Your task to perform on an android device: turn off translation in the chrome app Image 0: 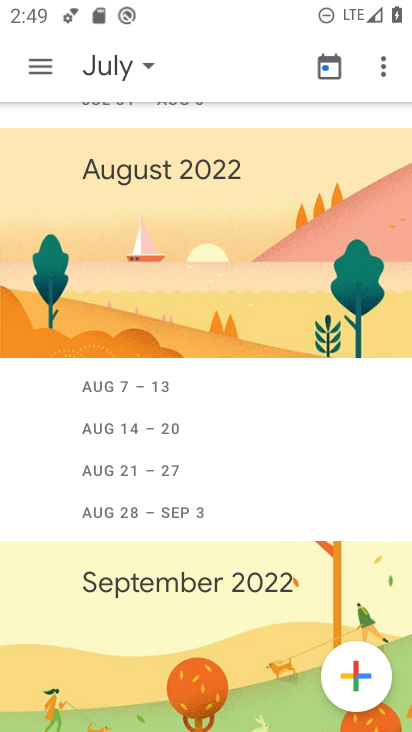
Step 0: press home button
Your task to perform on an android device: turn off translation in the chrome app Image 1: 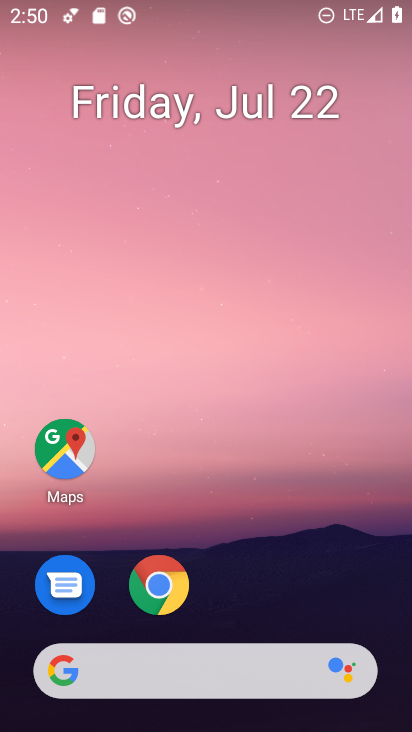
Step 1: click (173, 580)
Your task to perform on an android device: turn off translation in the chrome app Image 2: 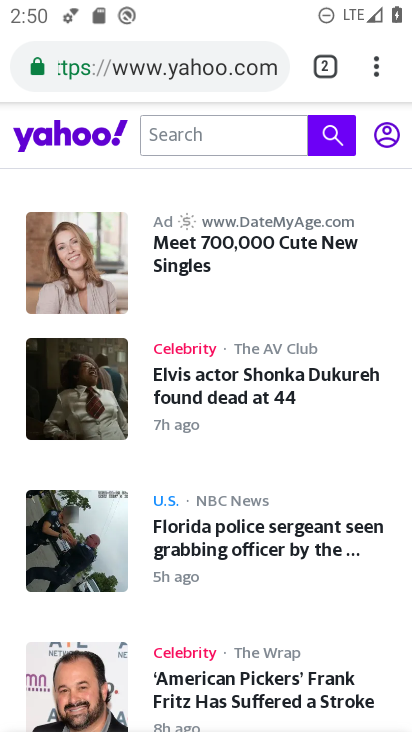
Step 2: click (375, 68)
Your task to perform on an android device: turn off translation in the chrome app Image 3: 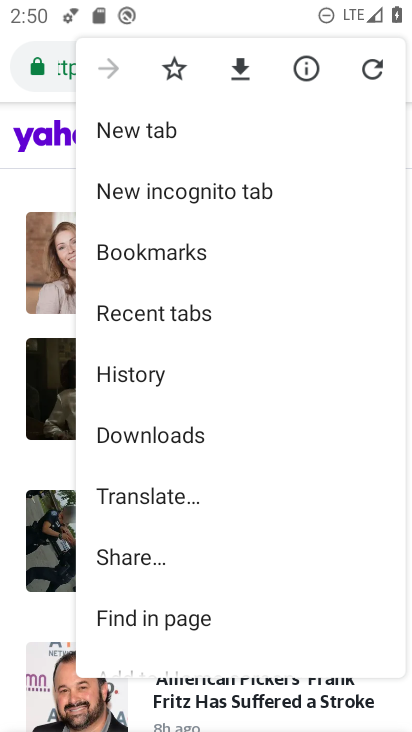
Step 3: drag from (228, 613) to (335, 261)
Your task to perform on an android device: turn off translation in the chrome app Image 4: 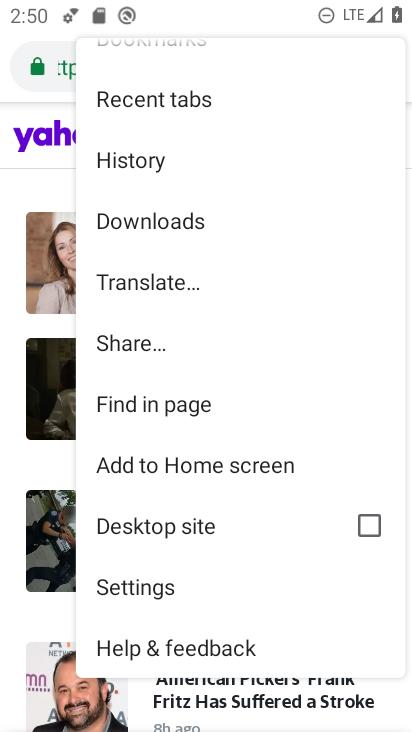
Step 4: click (166, 579)
Your task to perform on an android device: turn off translation in the chrome app Image 5: 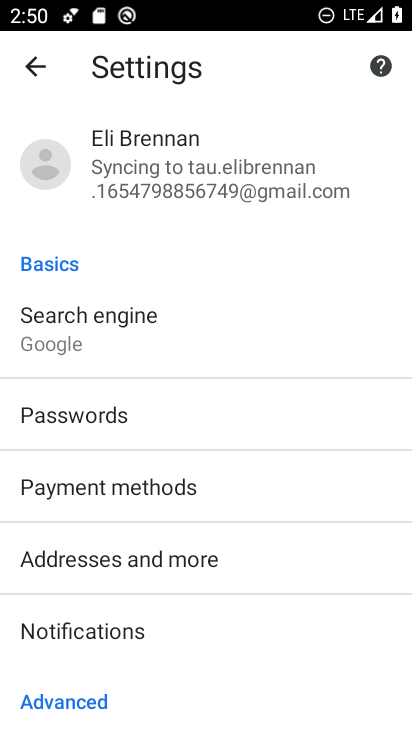
Step 5: drag from (213, 652) to (280, 145)
Your task to perform on an android device: turn off translation in the chrome app Image 6: 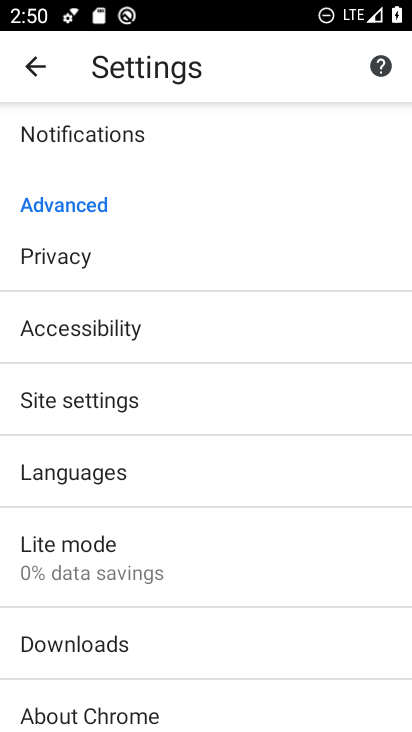
Step 6: click (108, 476)
Your task to perform on an android device: turn off translation in the chrome app Image 7: 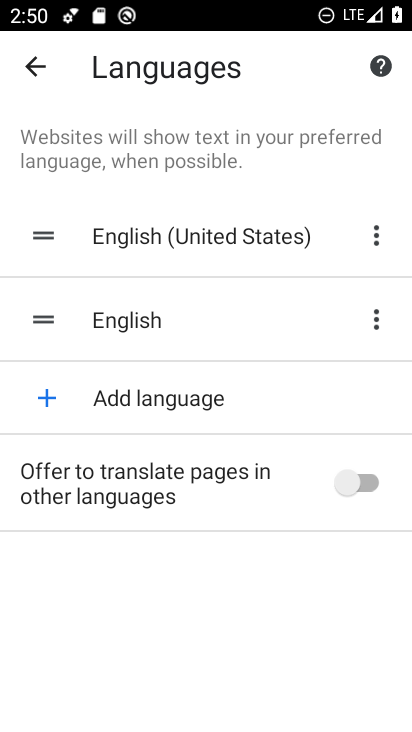
Step 7: click (349, 477)
Your task to perform on an android device: turn off translation in the chrome app Image 8: 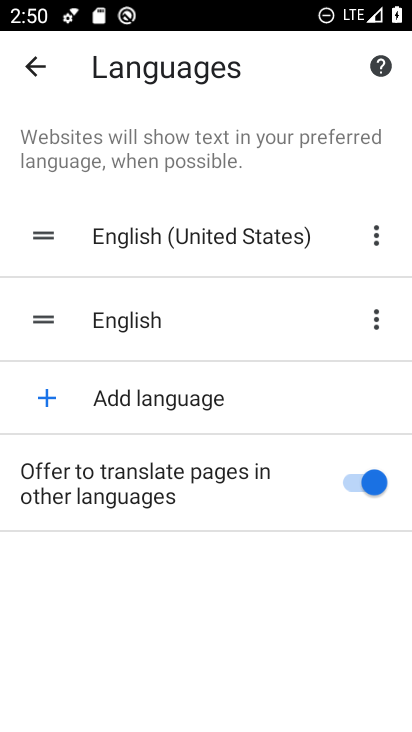
Step 8: click (349, 477)
Your task to perform on an android device: turn off translation in the chrome app Image 9: 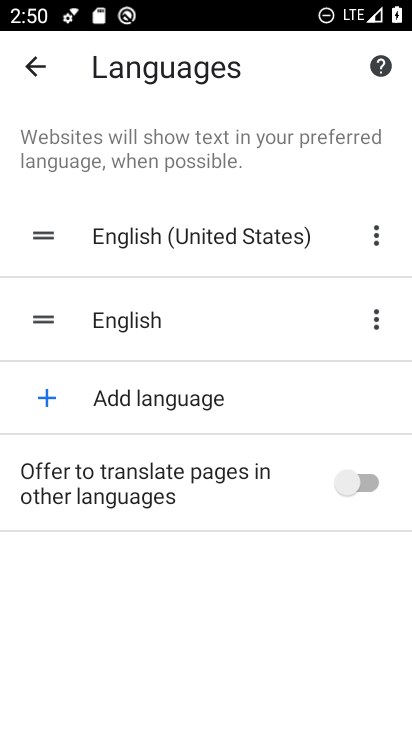
Step 9: task complete